Your task to perform on an android device: check storage Image 0: 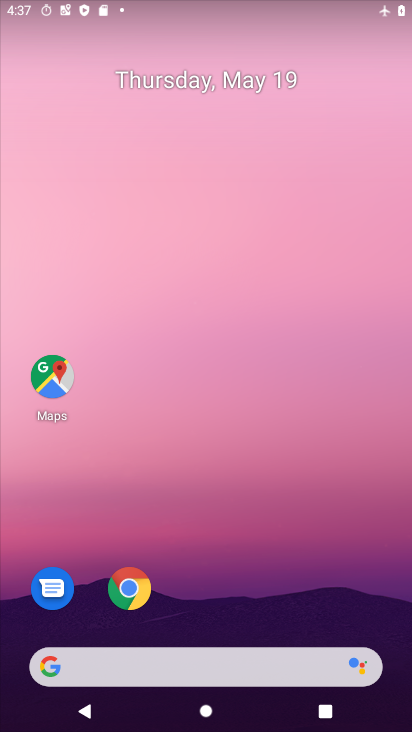
Step 0: drag from (208, 631) to (241, 113)
Your task to perform on an android device: check storage Image 1: 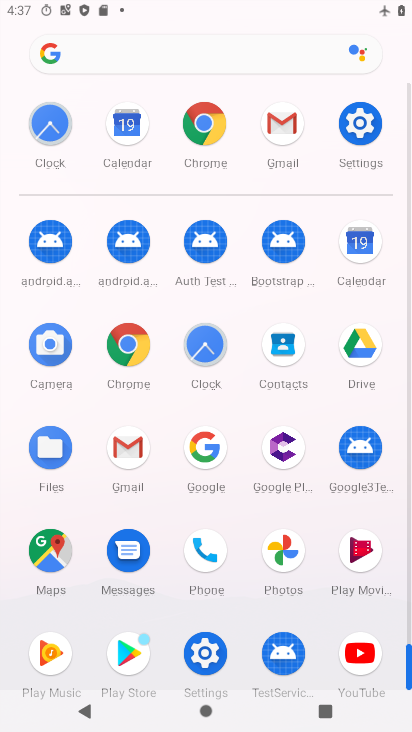
Step 1: click (364, 125)
Your task to perform on an android device: check storage Image 2: 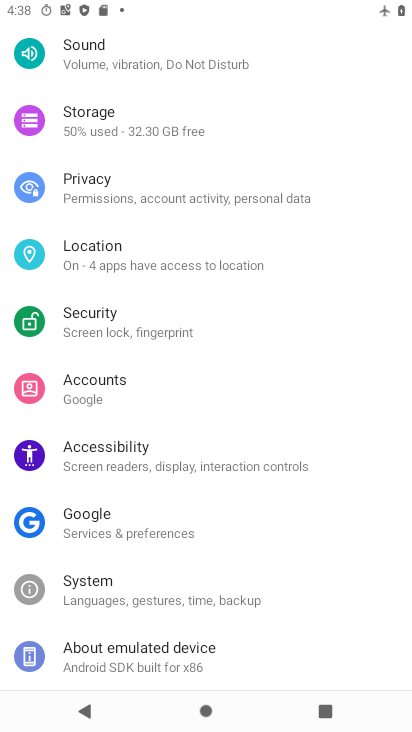
Step 2: click (141, 124)
Your task to perform on an android device: check storage Image 3: 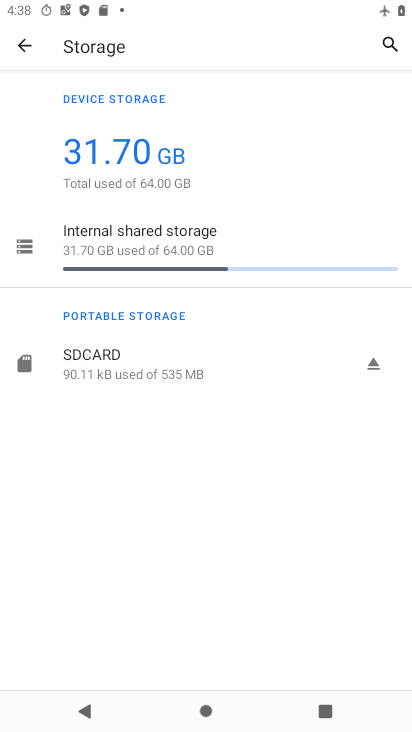
Step 3: click (159, 256)
Your task to perform on an android device: check storage Image 4: 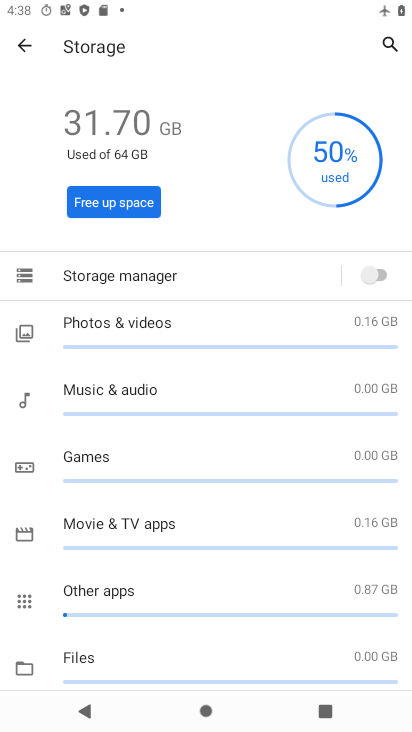
Step 4: task complete